Your task to perform on an android device: Search for seafood restaurants on Google Maps Image 0: 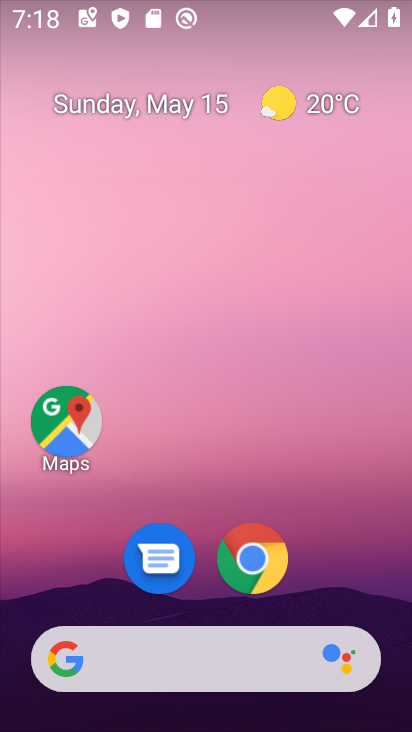
Step 0: click (67, 424)
Your task to perform on an android device: Search for seafood restaurants on Google Maps Image 1: 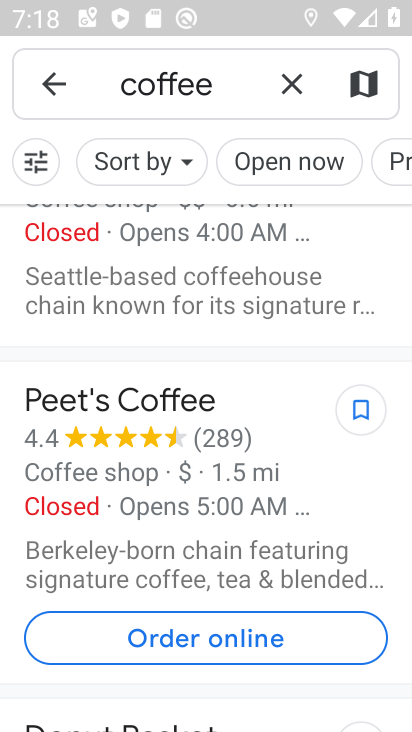
Step 1: click (292, 78)
Your task to perform on an android device: Search for seafood restaurants on Google Maps Image 2: 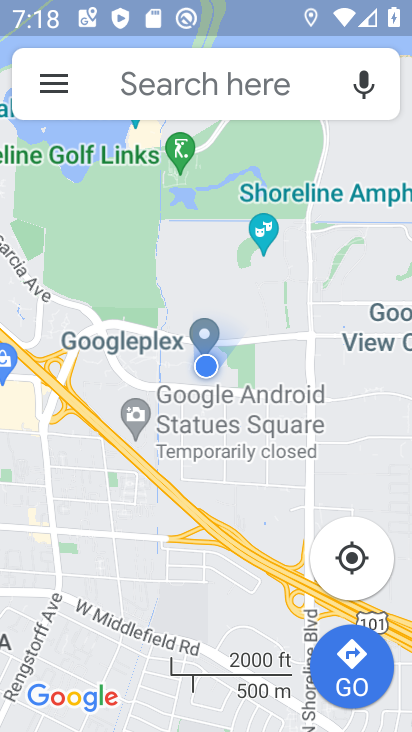
Step 2: click (140, 108)
Your task to perform on an android device: Search for seafood restaurants on Google Maps Image 3: 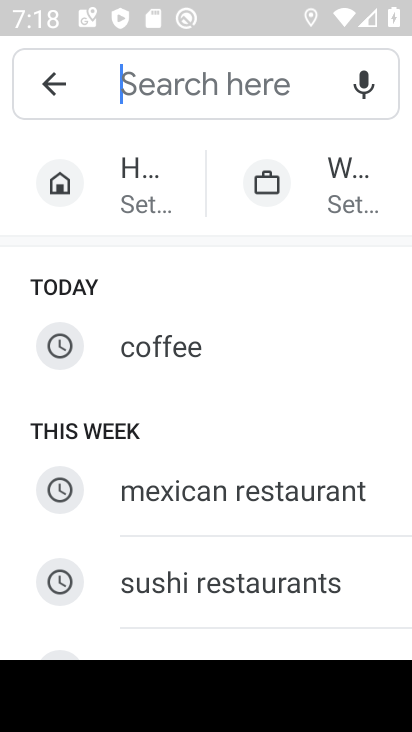
Step 3: type "seafood restaurants"
Your task to perform on an android device: Search for seafood restaurants on Google Maps Image 4: 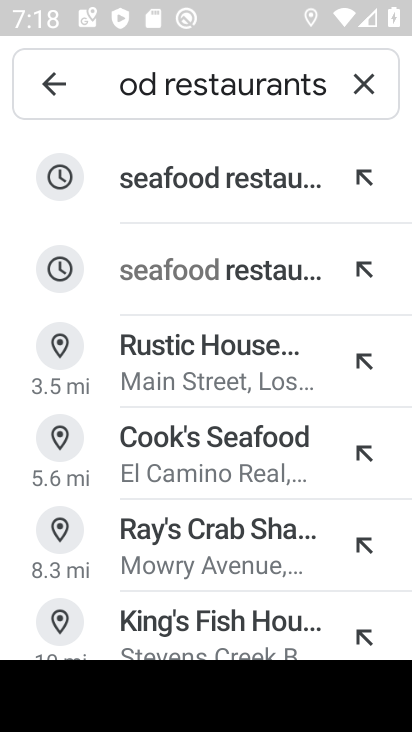
Step 4: click (212, 173)
Your task to perform on an android device: Search for seafood restaurants on Google Maps Image 5: 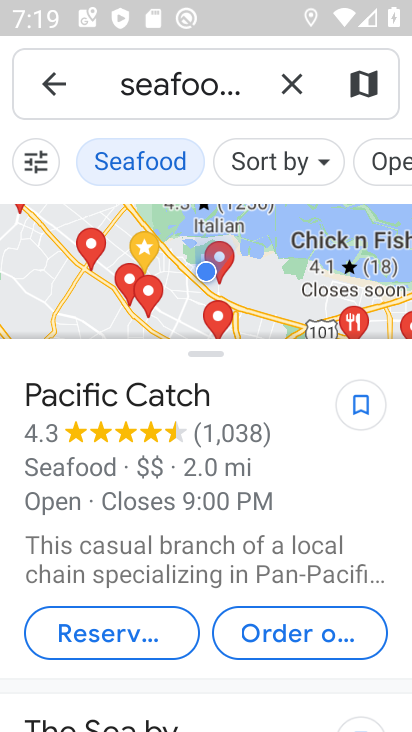
Step 5: task complete